Your task to perform on an android device: Go to display settings Image 0: 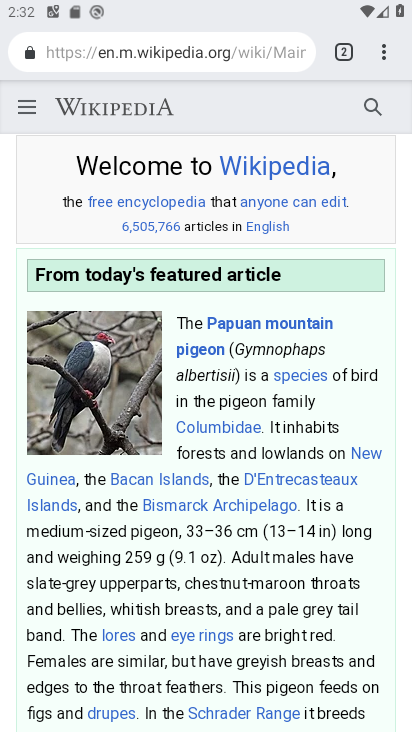
Step 0: press home button
Your task to perform on an android device: Go to display settings Image 1: 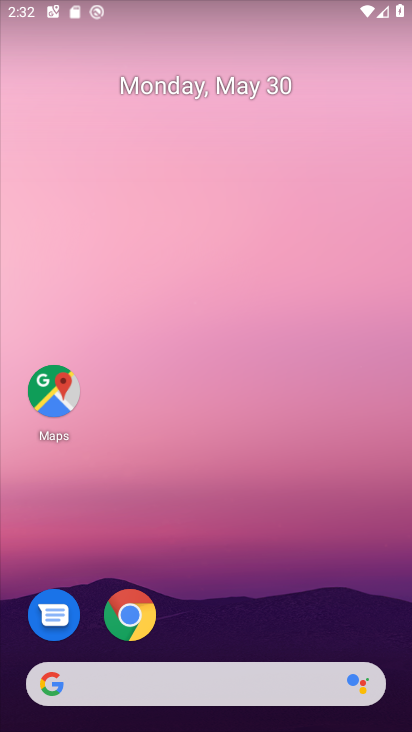
Step 1: drag from (257, 584) to (298, 37)
Your task to perform on an android device: Go to display settings Image 2: 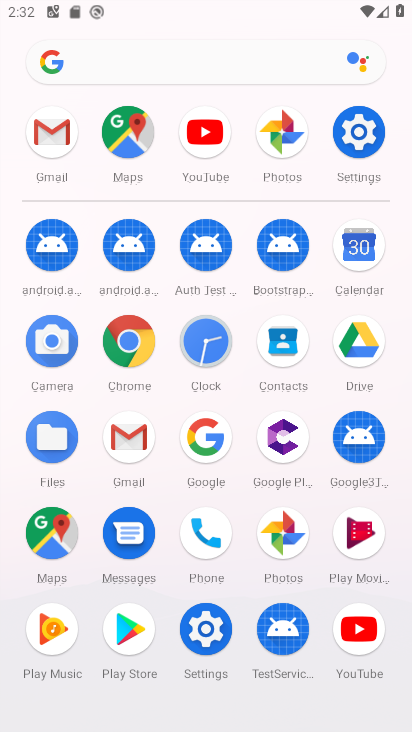
Step 2: click (349, 122)
Your task to perform on an android device: Go to display settings Image 3: 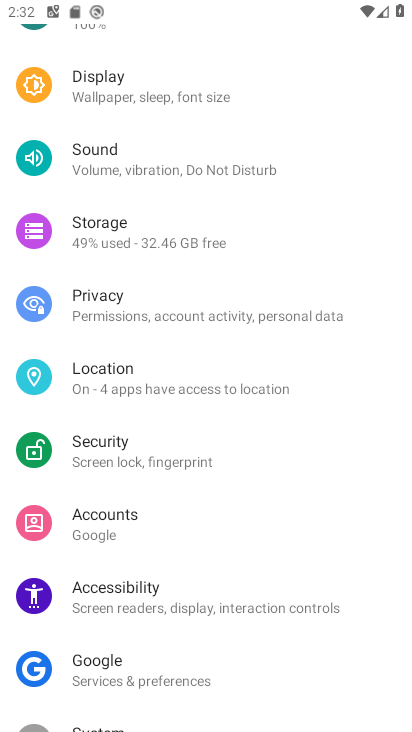
Step 3: click (175, 90)
Your task to perform on an android device: Go to display settings Image 4: 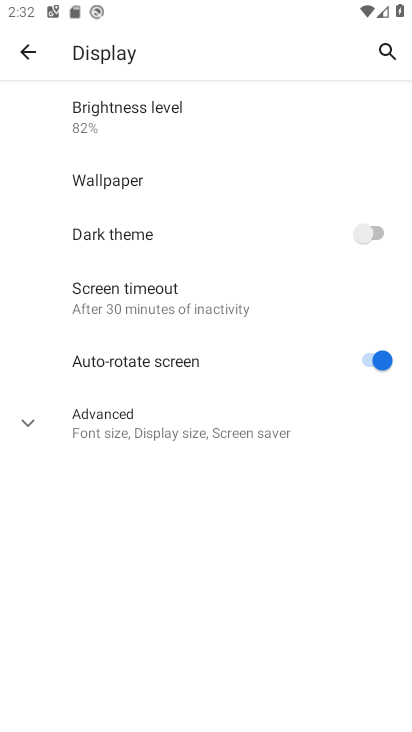
Step 4: task complete